Your task to perform on an android device: change the upload size in google photos Image 0: 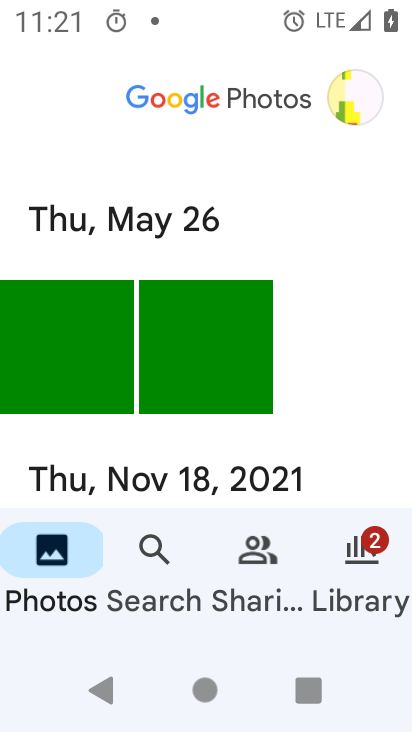
Step 0: drag from (219, 477) to (226, 266)
Your task to perform on an android device: change the upload size in google photos Image 1: 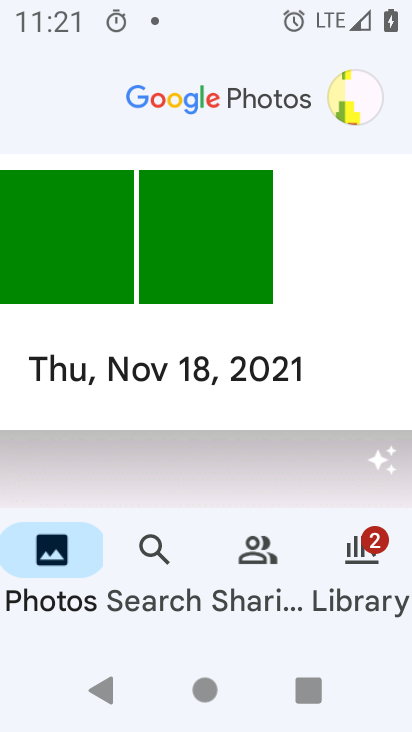
Step 1: drag from (231, 419) to (283, 210)
Your task to perform on an android device: change the upload size in google photos Image 2: 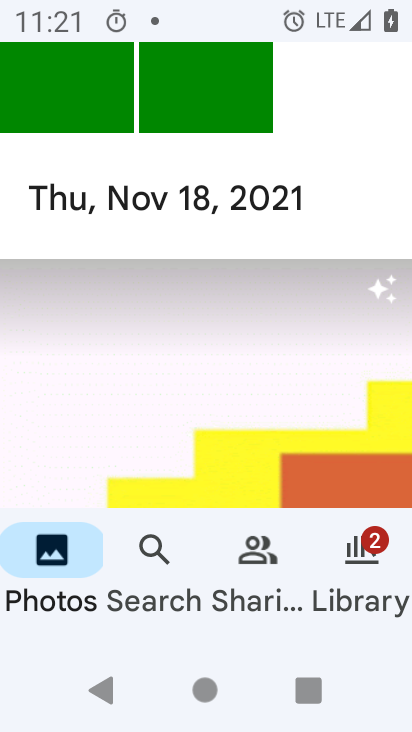
Step 2: drag from (291, 229) to (331, 665)
Your task to perform on an android device: change the upload size in google photos Image 3: 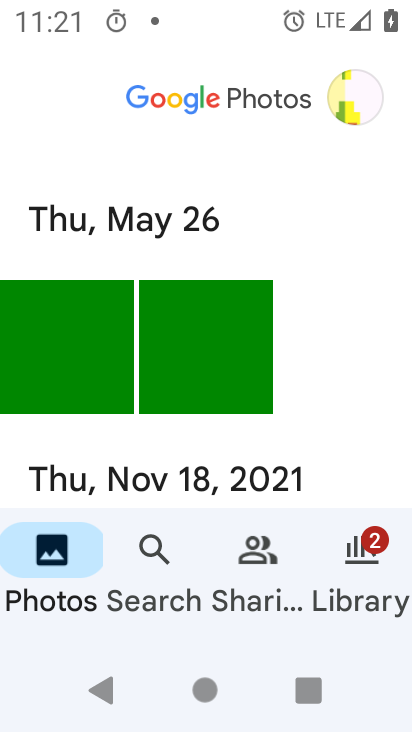
Step 3: click (346, 545)
Your task to perform on an android device: change the upload size in google photos Image 4: 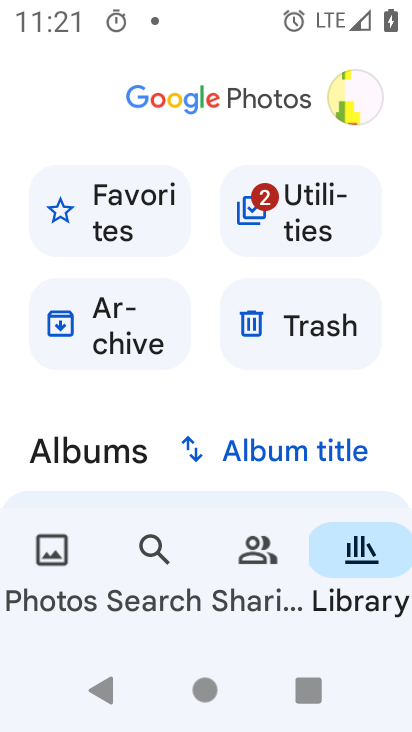
Step 4: click (368, 109)
Your task to perform on an android device: change the upload size in google photos Image 5: 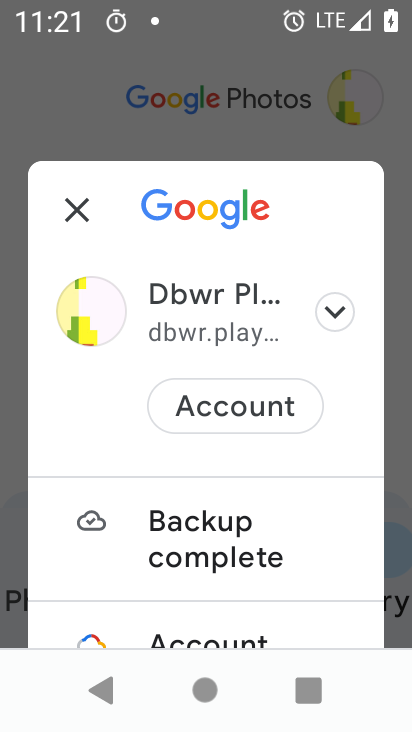
Step 5: drag from (227, 436) to (230, 183)
Your task to perform on an android device: change the upload size in google photos Image 6: 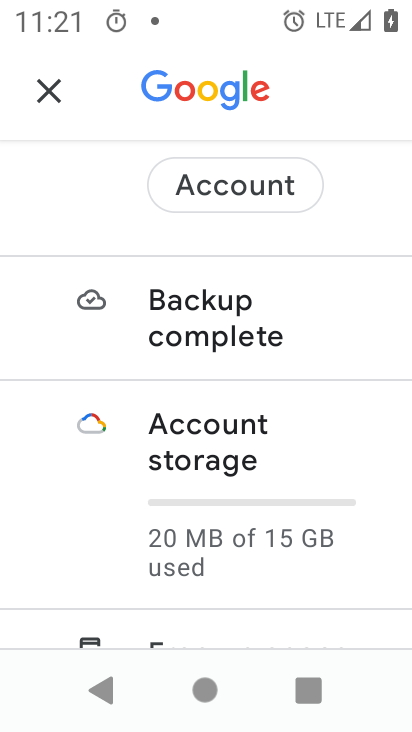
Step 6: drag from (219, 497) to (210, 169)
Your task to perform on an android device: change the upload size in google photos Image 7: 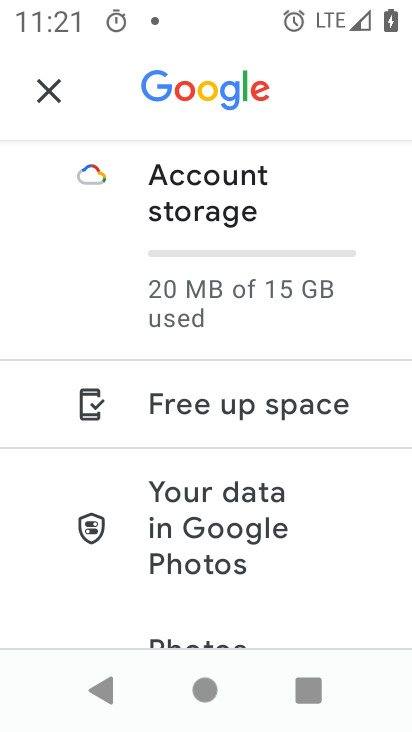
Step 7: drag from (263, 581) to (293, 252)
Your task to perform on an android device: change the upload size in google photos Image 8: 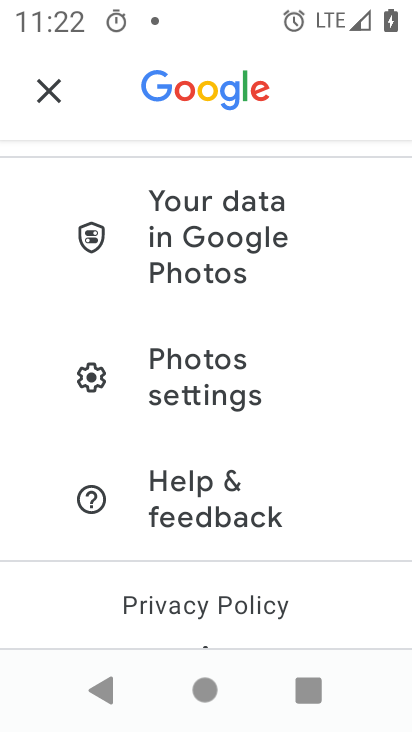
Step 8: drag from (214, 244) to (287, 706)
Your task to perform on an android device: change the upload size in google photos Image 9: 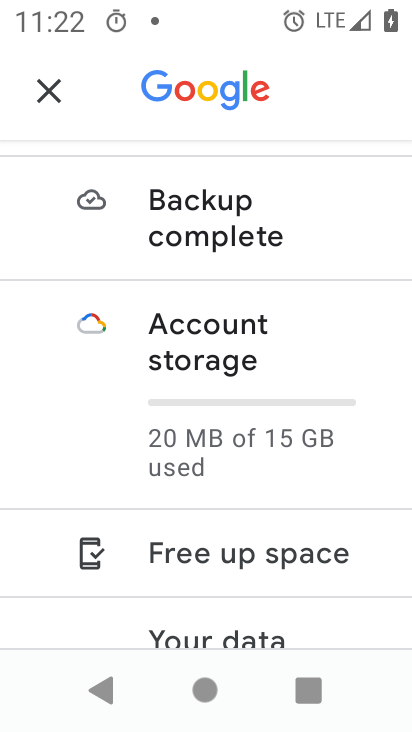
Step 9: drag from (237, 454) to (342, 56)
Your task to perform on an android device: change the upload size in google photos Image 10: 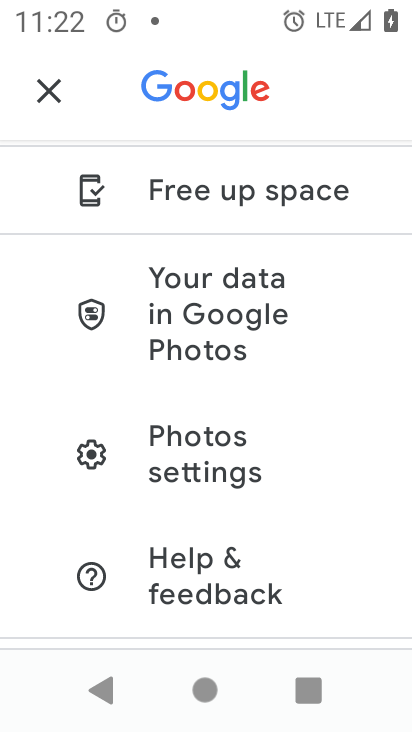
Step 10: click (232, 468)
Your task to perform on an android device: change the upload size in google photos Image 11: 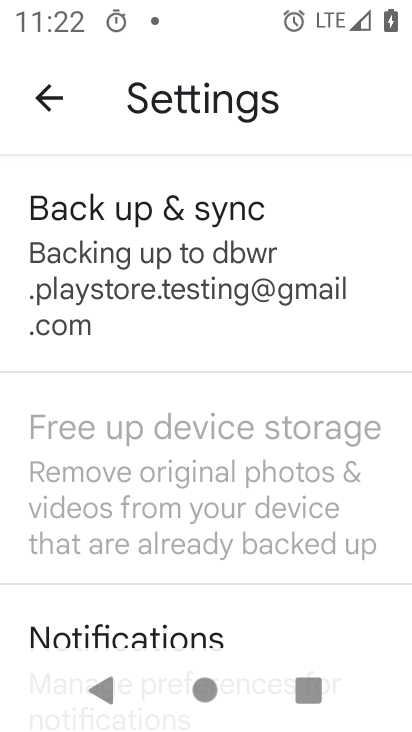
Step 11: drag from (252, 611) to (291, 274)
Your task to perform on an android device: change the upload size in google photos Image 12: 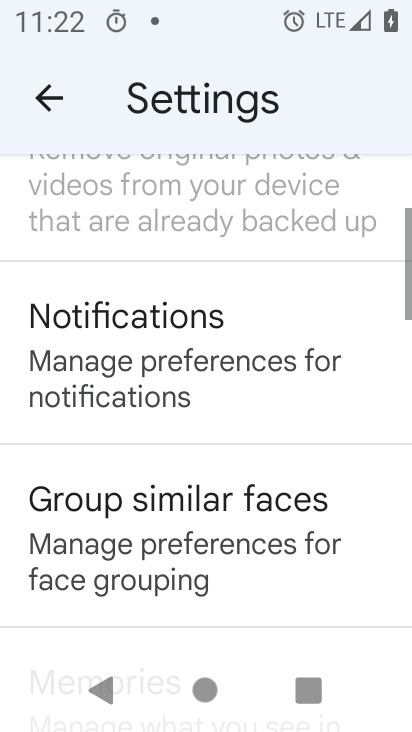
Step 12: drag from (254, 243) to (316, 637)
Your task to perform on an android device: change the upload size in google photos Image 13: 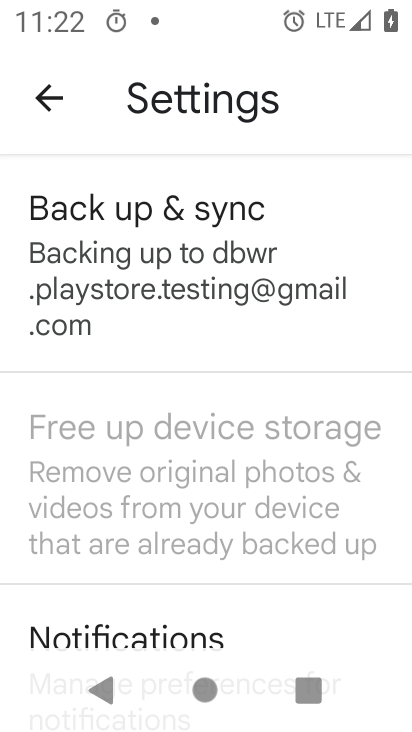
Step 13: click (198, 254)
Your task to perform on an android device: change the upload size in google photos Image 14: 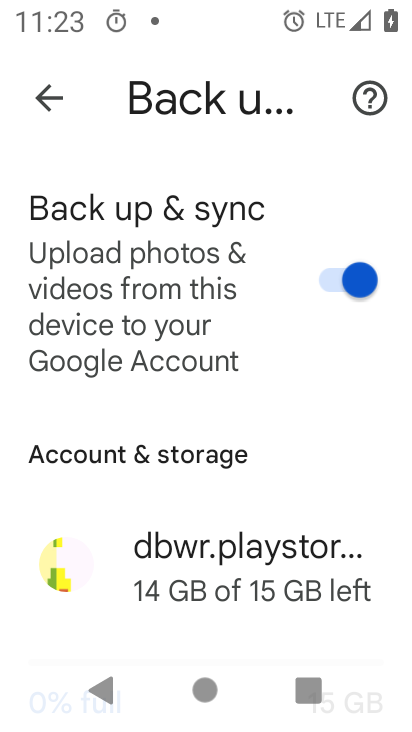
Step 14: drag from (250, 500) to (344, 210)
Your task to perform on an android device: change the upload size in google photos Image 15: 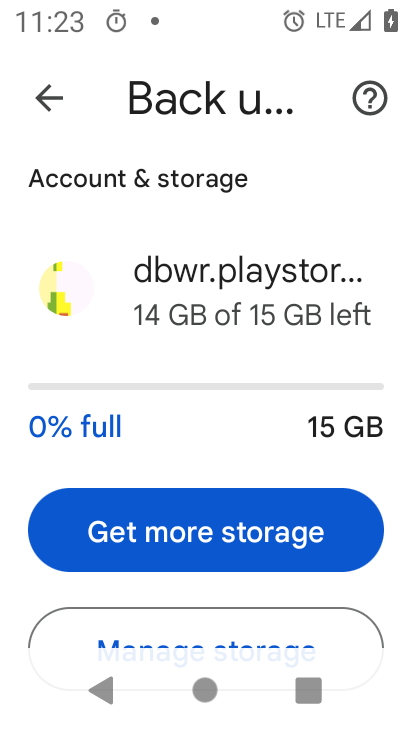
Step 15: drag from (245, 504) to (405, 78)
Your task to perform on an android device: change the upload size in google photos Image 16: 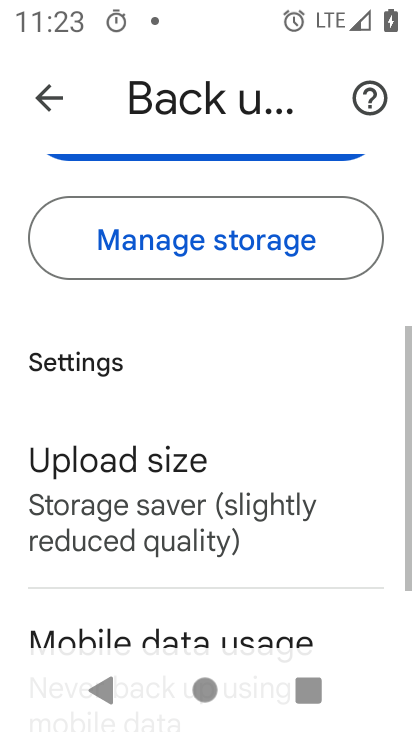
Step 16: click (184, 541)
Your task to perform on an android device: change the upload size in google photos Image 17: 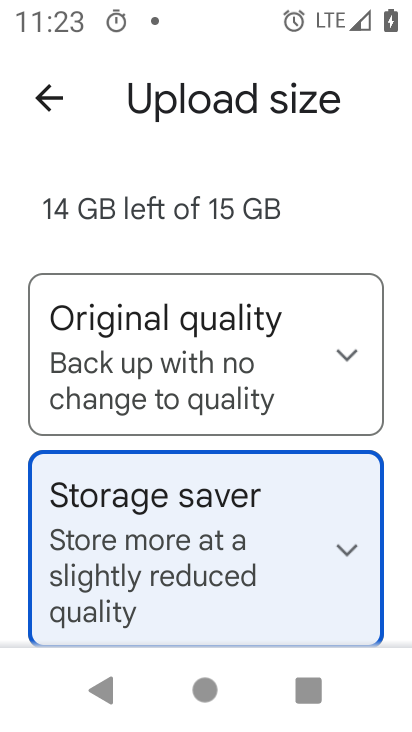
Step 17: drag from (185, 562) to (240, 271)
Your task to perform on an android device: change the upload size in google photos Image 18: 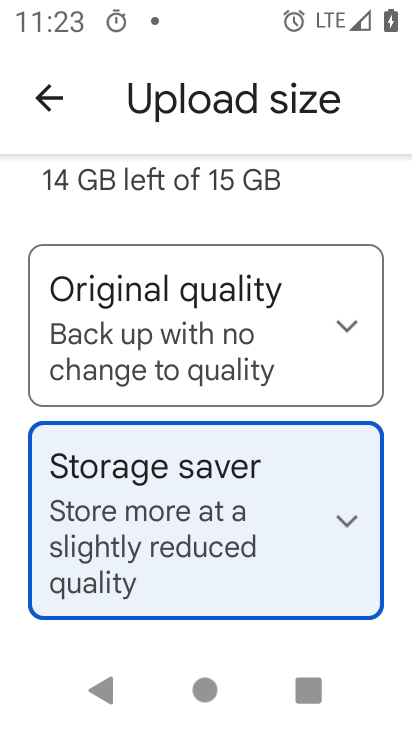
Step 18: click (268, 329)
Your task to perform on an android device: change the upload size in google photos Image 19: 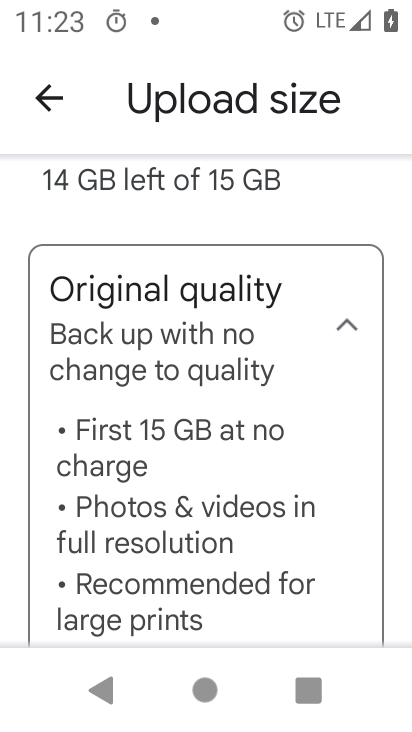
Step 19: drag from (293, 455) to (389, 22)
Your task to perform on an android device: change the upload size in google photos Image 20: 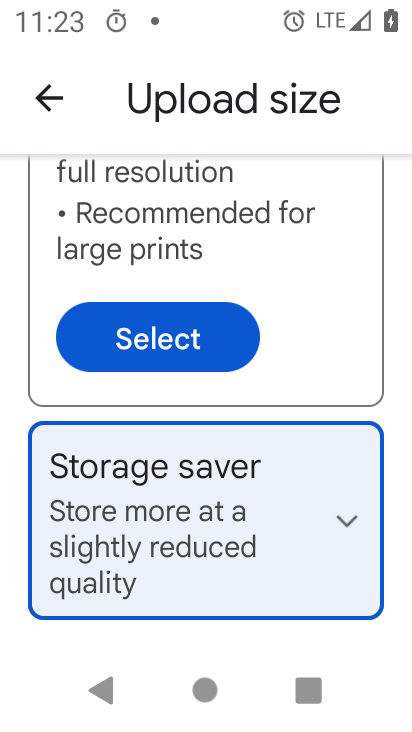
Step 20: click (134, 323)
Your task to perform on an android device: change the upload size in google photos Image 21: 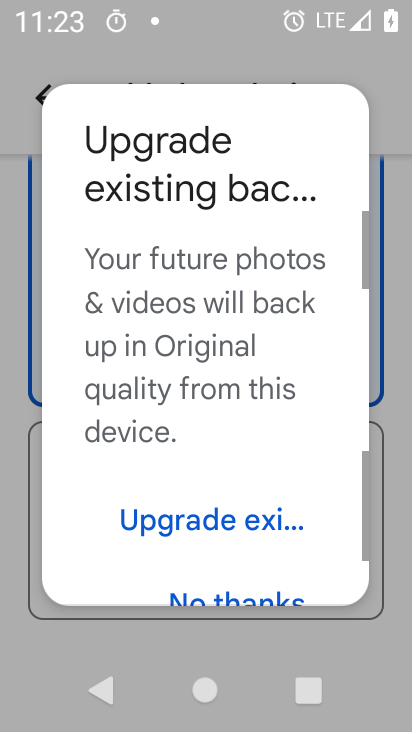
Step 21: task complete